Your task to perform on an android device: check battery use Image 0: 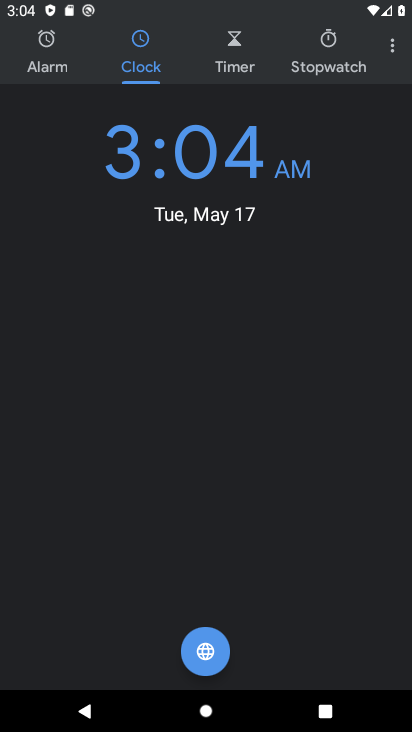
Step 0: press home button
Your task to perform on an android device: check battery use Image 1: 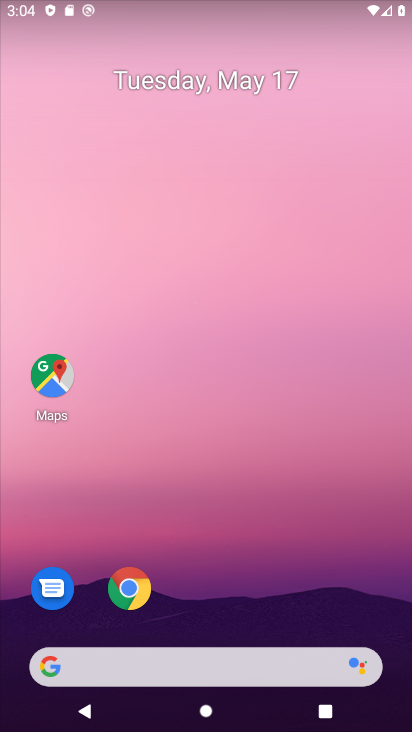
Step 1: drag from (199, 627) to (278, 125)
Your task to perform on an android device: check battery use Image 2: 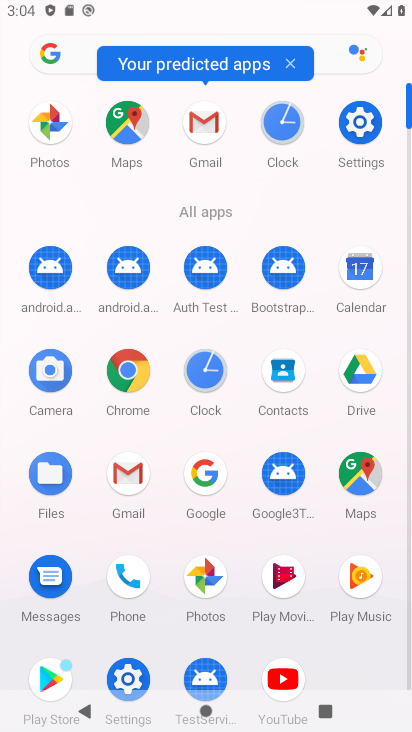
Step 2: drag from (241, 656) to (284, 448)
Your task to perform on an android device: check battery use Image 3: 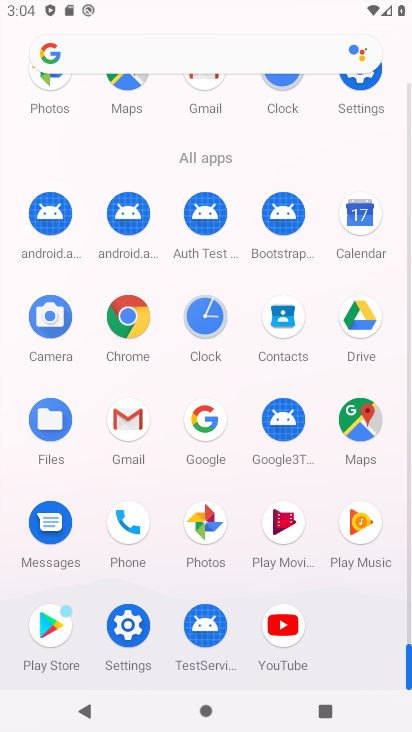
Step 3: click (132, 632)
Your task to perform on an android device: check battery use Image 4: 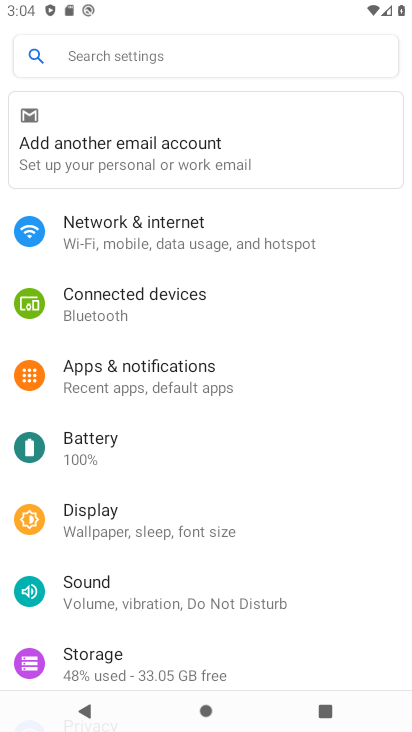
Step 4: click (167, 451)
Your task to perform on an android device: check battery use Image 5: 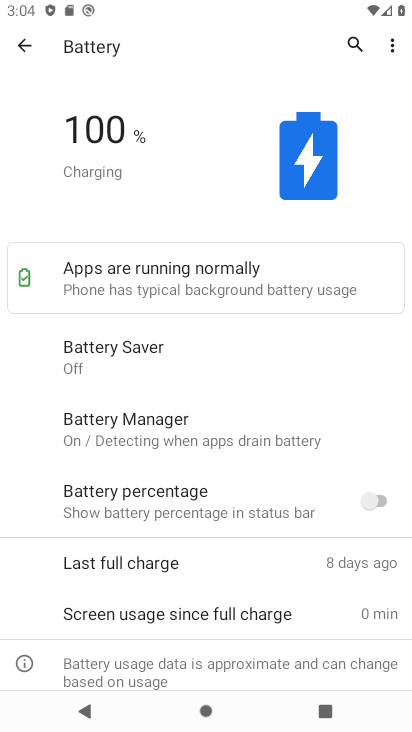
Step 5: click (397, 44)
Your task to perform on an android device: check battery use Image 6: 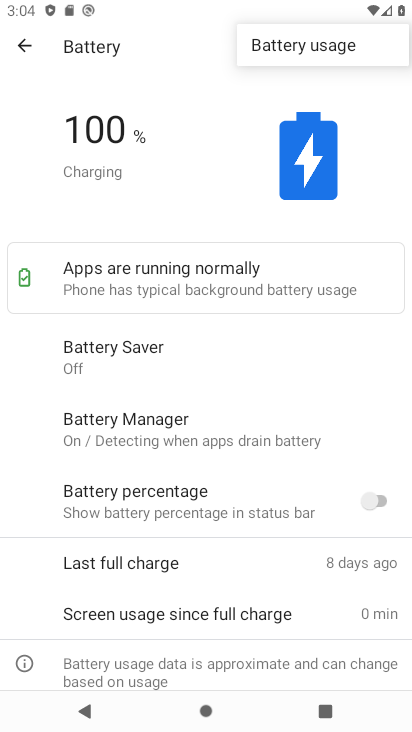
Step 6: click (387, 49)
Your task to perform on an android device: check battery use Image 7: 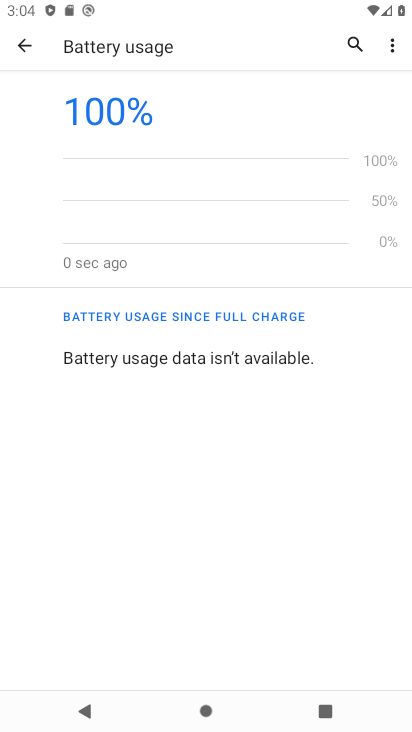
Step 7: task complete